Your task to perform on an android device: Open Android settings Image 0: 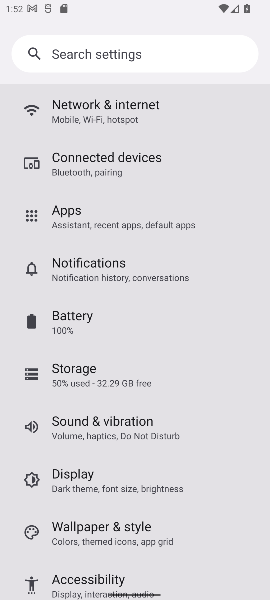
Step 0: press home button
Your task to perform on an android device: Open Android settings Image 1: 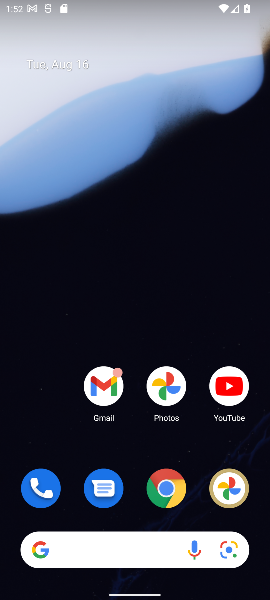
Step 1: drag from (66, 372) to (116, 76)
Your task to perform on an android device: Open Android settings Image 2: 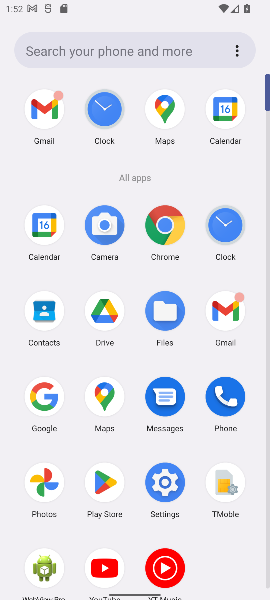
Step 2: click (165, 223)
Your task to perform on an android device: Open Android settings Image 3: 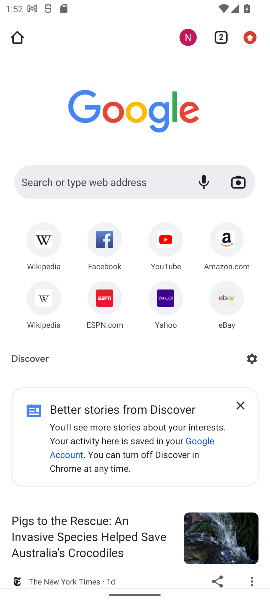
Step 3: task complete